Your task to perform on an android device: clear all cookies in the chrome app Image 0: 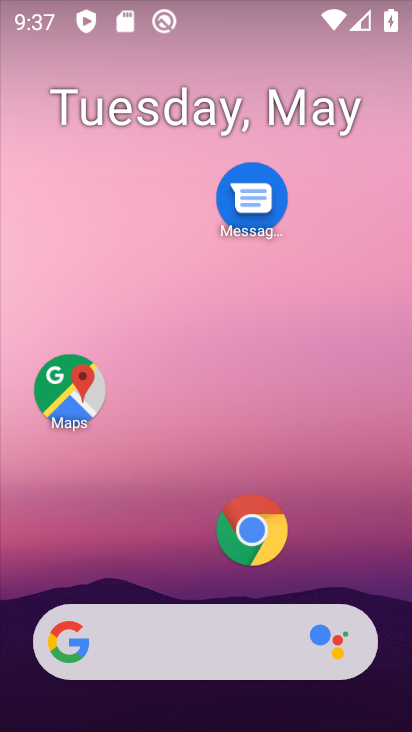
Step 0: click (249, 524)
Your task to perform on an android device: clear all cookies in the chrome app Image 1: 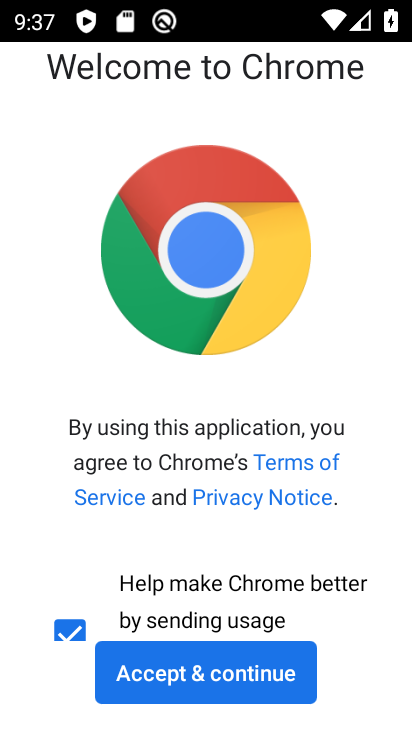
Step 1: click (183, 677)
Your task to perform on an android device: clear all cookies in the chrome app Image 2: 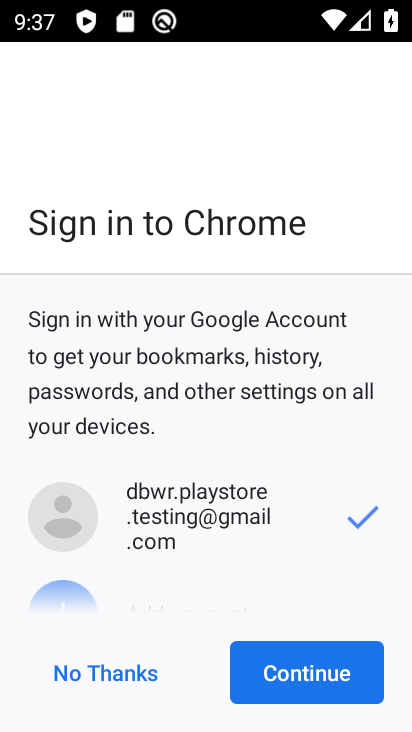
Step 2: click (308, 683)
Your task to perform on an android device: clear all cookies in the chrome app Image 3: 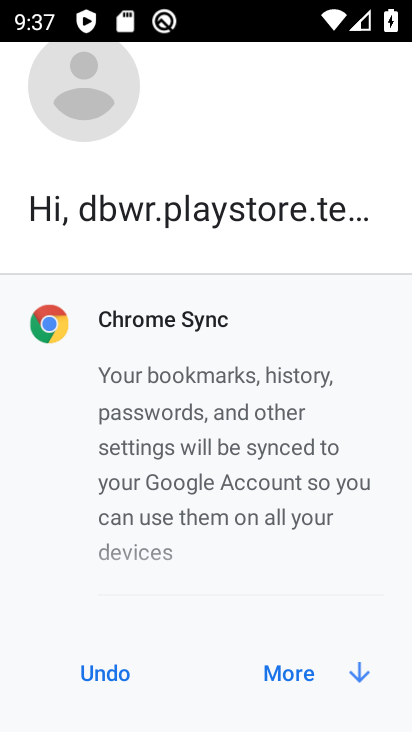
Step 3: click (301, 676)
Your task to perform on an android device: clear all cookies in the chrome app Image 4: 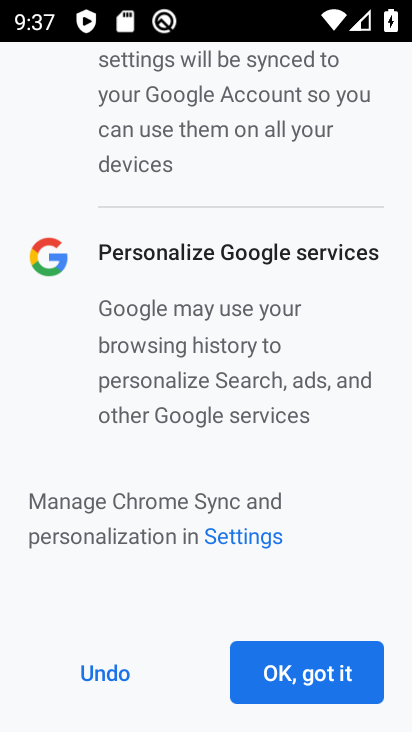
Step 4: click (335, 676)
Your task to perform on an android device: clear all cookies in the chrome app Image 5: 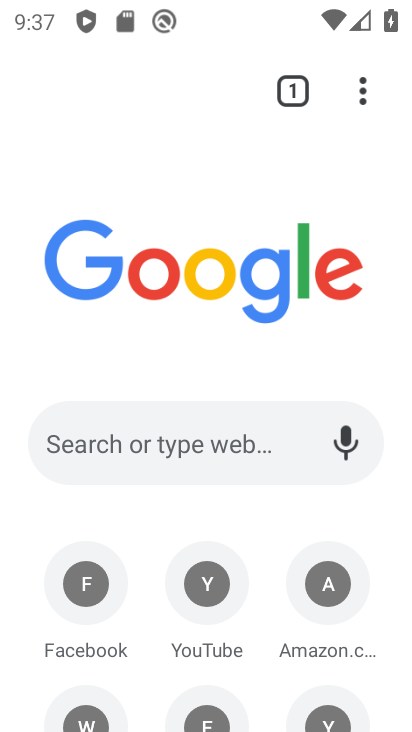
Step 5: click (354, 80)
Your task to perform on an android device: clear all cookies in the chrome app Image 6: 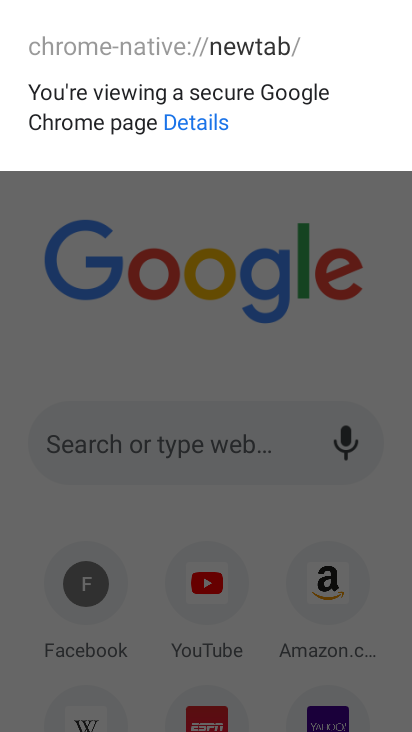
Step 6: click (333, 333)
Your task to perform on an android device: clear all cookies in the chrome app Image 7: 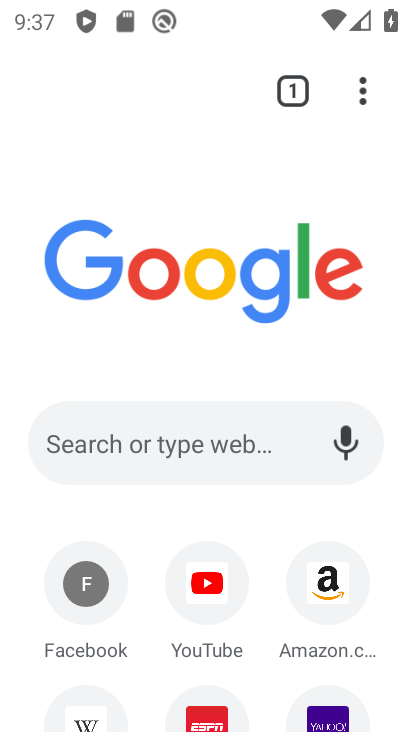
Step 7: click (377, 315)
Your task to perform on an android device: clear all cookies in the chrome app Image 8: 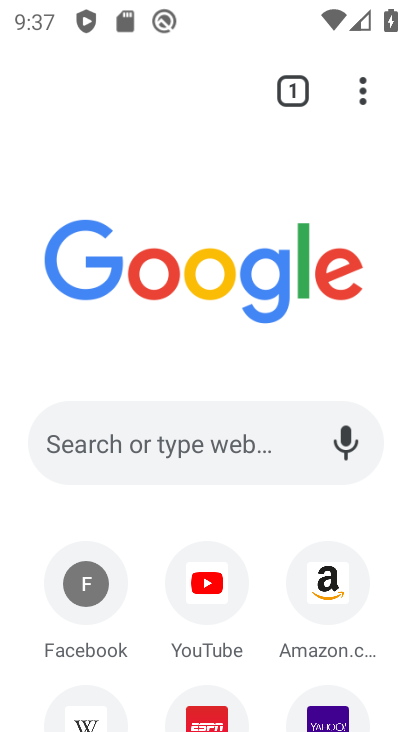
Step 8: click (363, 79)
Your task to perform on an android device: clear all cookies in the chrome app Image 9: 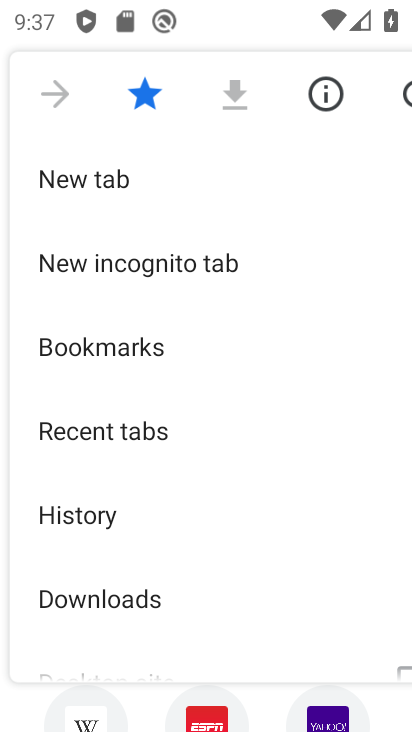
Step 9: drag from (144, 586) to (131, 271)
Your task to perform on an android device: clear all cookies in the chrome app Image 10: 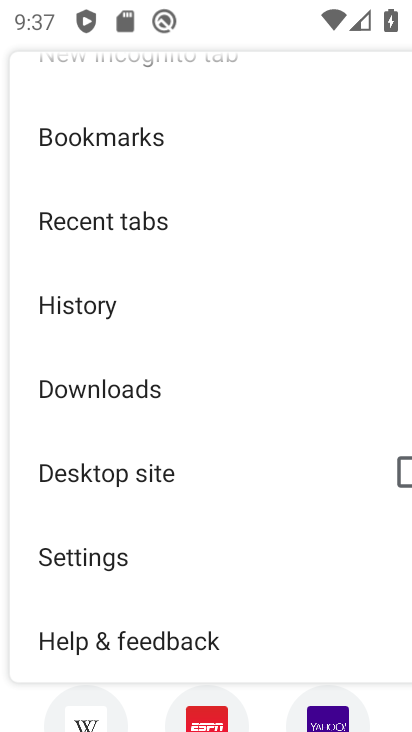
Step 10: click (115, 578)
Your task to perform on an android device: clear all cookies in the chrome app Image 11: 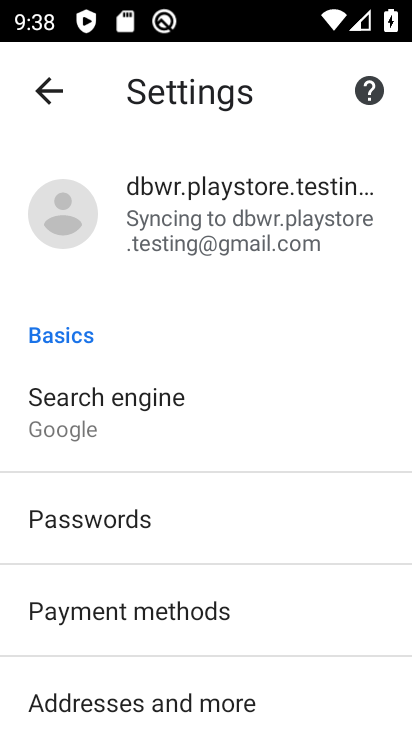
Step 11: press back button
Your task to perform on an android device: clear all cookies in the chrome app Image 12: 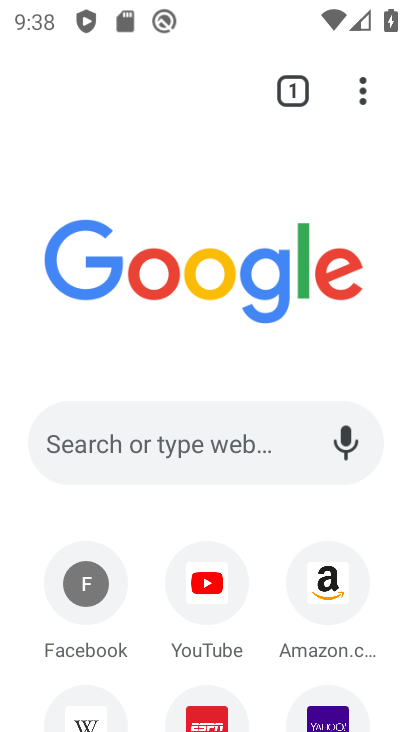
Step 12: click (362, 90)
Your task to perform on an android device: clear all cookies in the chrome app Image 13: 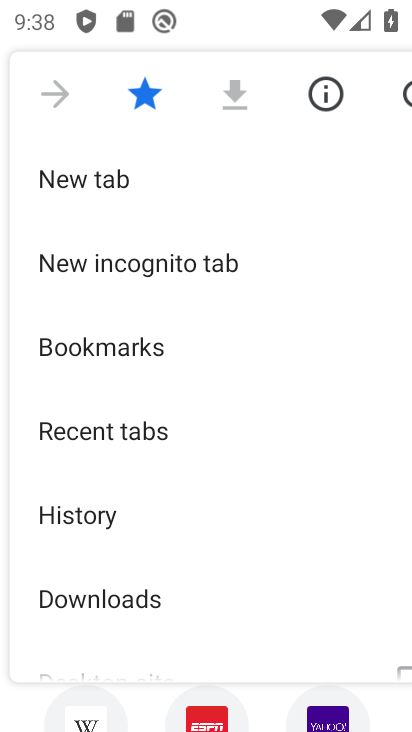
Step 13: click (106, 519)
Your task to perform on an android device: clear all cookies in the chrome app Image 14: 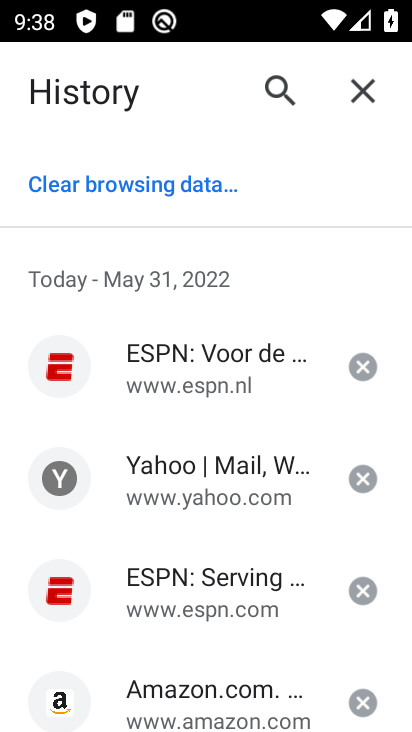
Step 14: click (116, 185)
Your task to perform on an android device: clear all cookies in the chrome app Image 15: 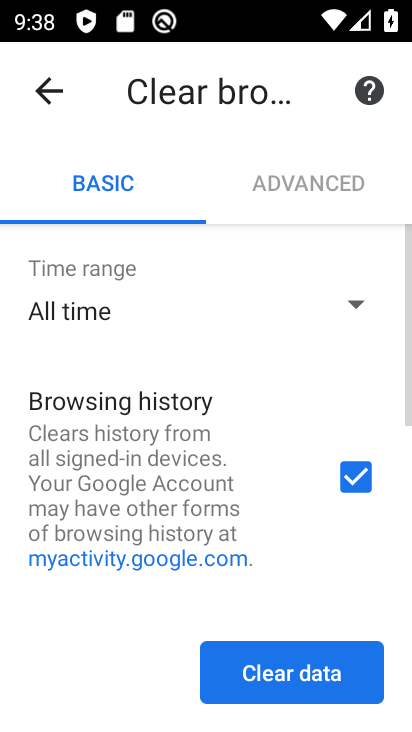
Step 15: drag from (240, 525) to (244, 385)
Your task to perform on an android device: clear all cookies in the chrome app Image 16: 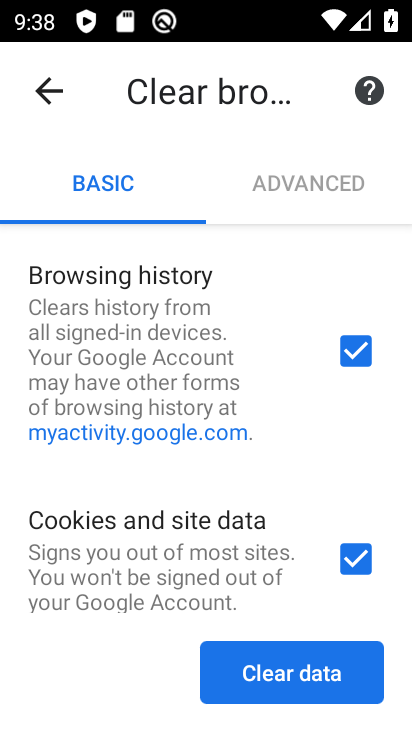
Step 16: drag from (245, 479) to (251, 412)
Your task to perform on an android device: clear all cookies in the chrome app Image 17: 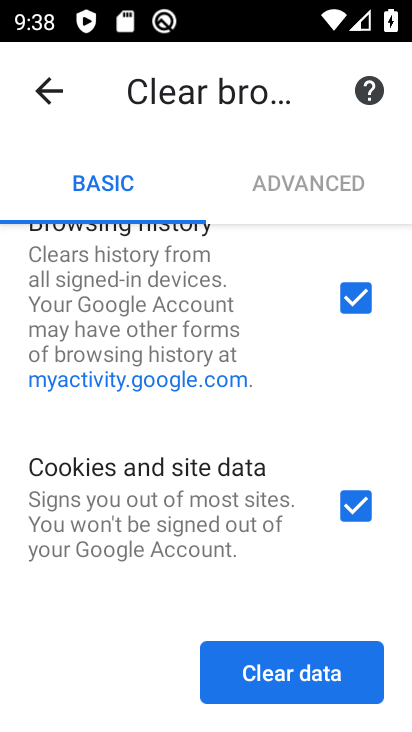
Step 17: click (295, 667)
Your task to perform on an android device: clear all cookies in the chrome app Image 18: 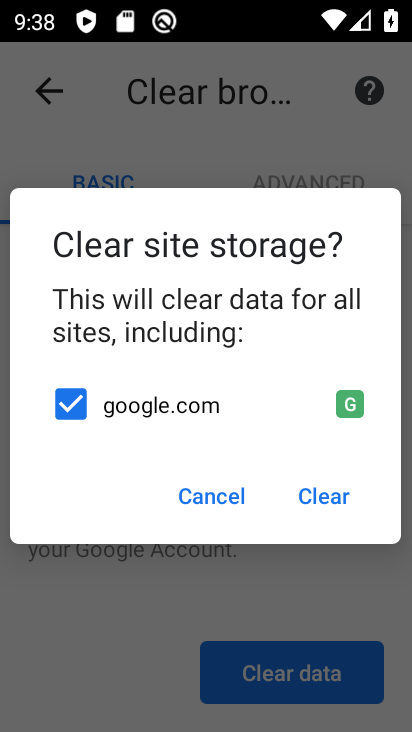
Step 18: click (336, 498)
Your task to perform on an android device: clear all cookies in the chrome app Image 19: 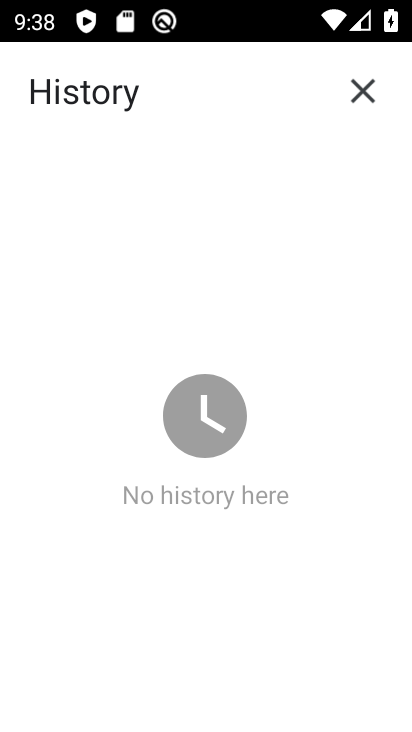
Step 19: task complete